Your task to perform on an android device: check out phone information Image 0: 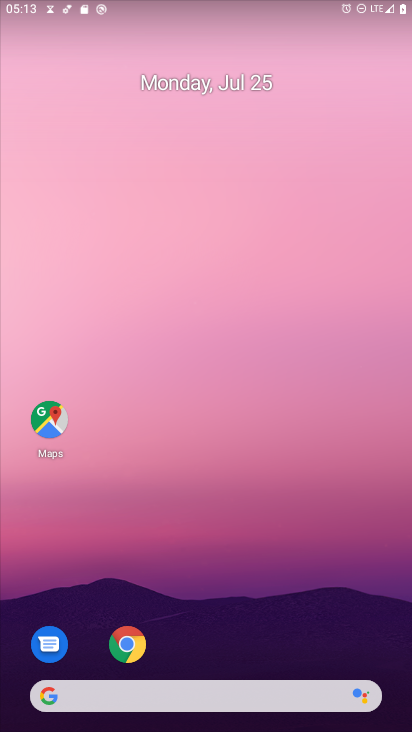
Step 0: press home button
Your task to perform on an android device: check out phone information Image 1: 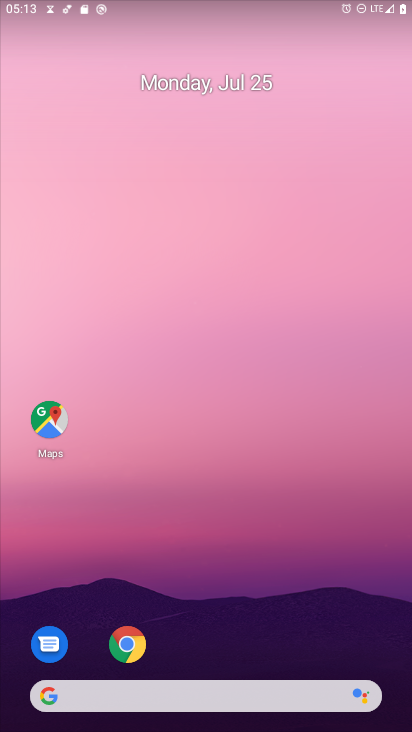
Step 1: drag from (283, 619) to (230, 131)
Your task to perform on an android device: check out phone information Image 2: 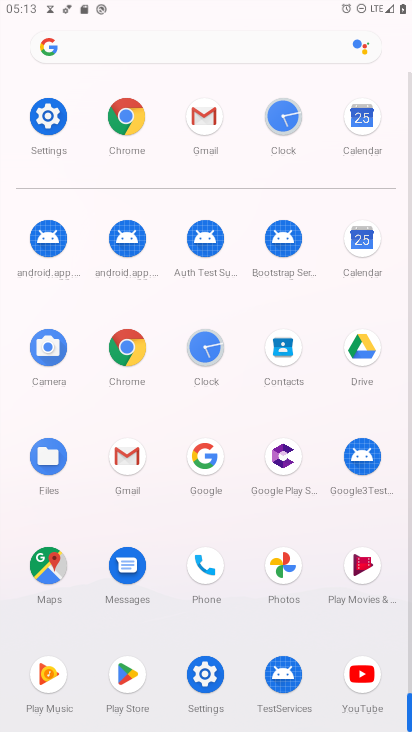
Step 2: click (49, 110)
Your task to perform on an android device: check out phone information Image 3: 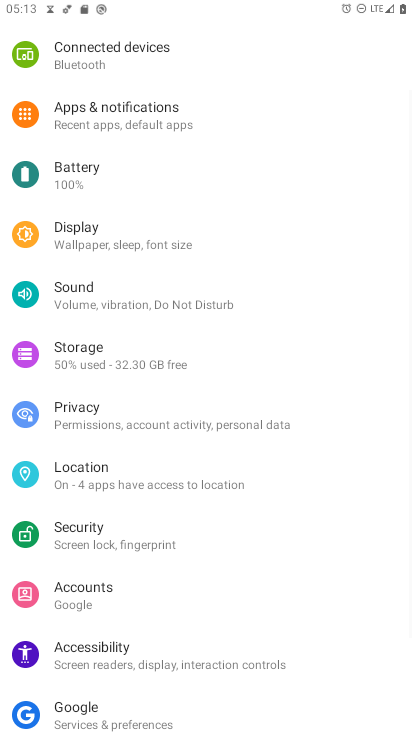
Step 3: drag from (261, 693) to (239, 80)
Your task to perform on an android device: check out phone information Image 4: 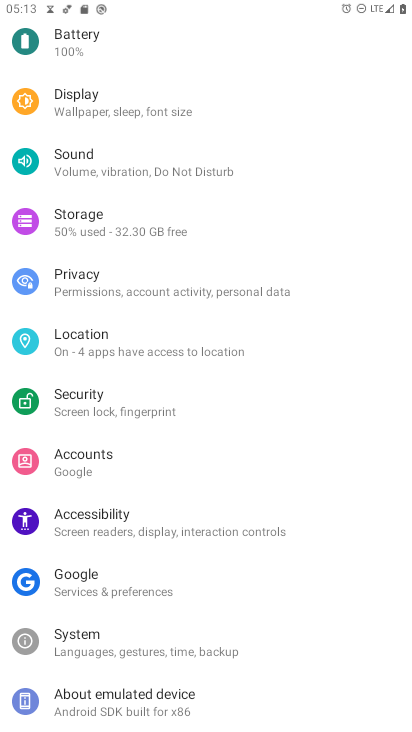
Step 4: click (169, 691)
Your task to perform on an android device: check out phone information Image 5: 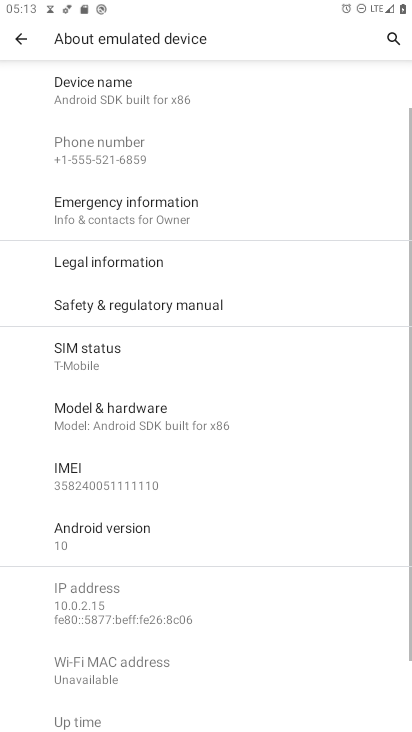
Step 5: task complete